Your task to perform on an android device: Search for sushi restaurants on Maps Image 0: 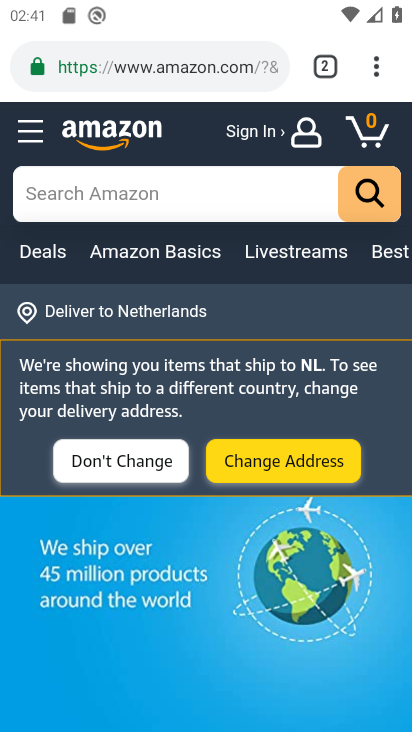
Step 0: press home button
Your task to perform on an android device: Search for sushi restaurants on Maps Image 1: 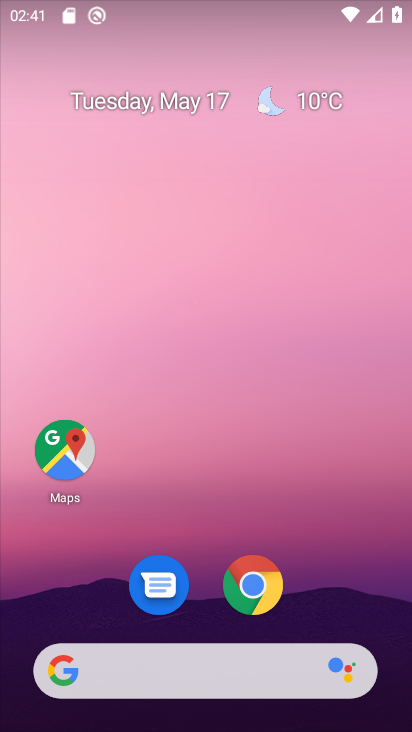
Step 1: click (71, 442)
Your task to perform on an android device: Search for sushi restaurants on Maps Image 2: 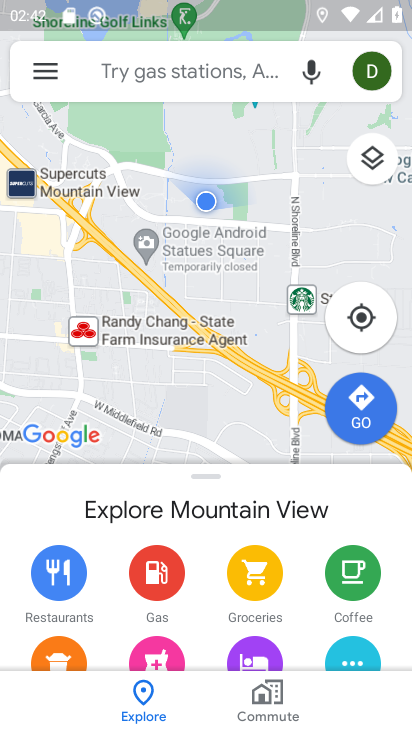
Step 2: click (172, 60)
Your task to perform on an android device: Search for sushi restaurants on Maps Image 3: 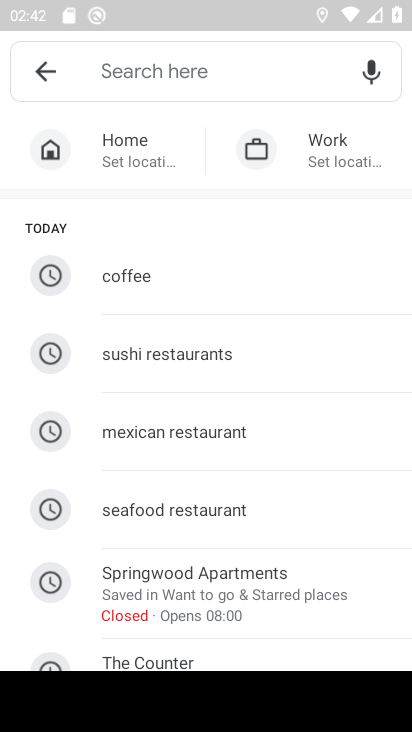
Step 3: click (156, 362)
Your task to perform on an android device: Search for sushi restaurants on Maps Image 4: 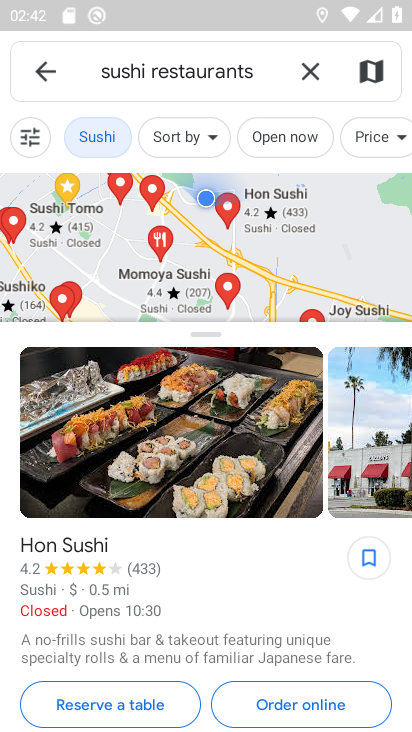
Step 4: task complete